Your task to perform on an android device: delete browsing data in the chrome app Image 0: 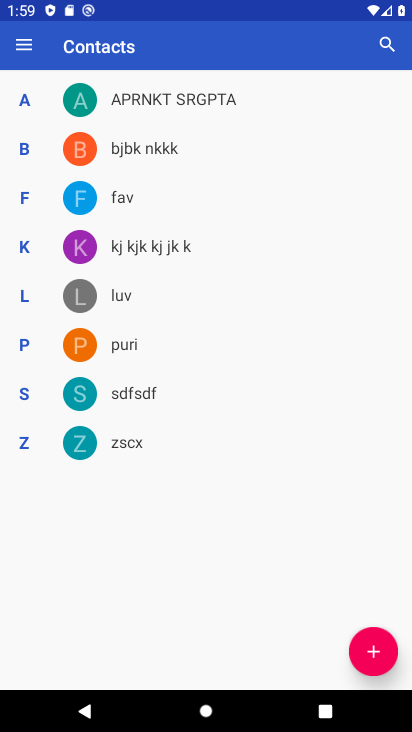
Step 0: press home button
Your task to perform on an android device: delete browsing data in the chrome app Image 1: 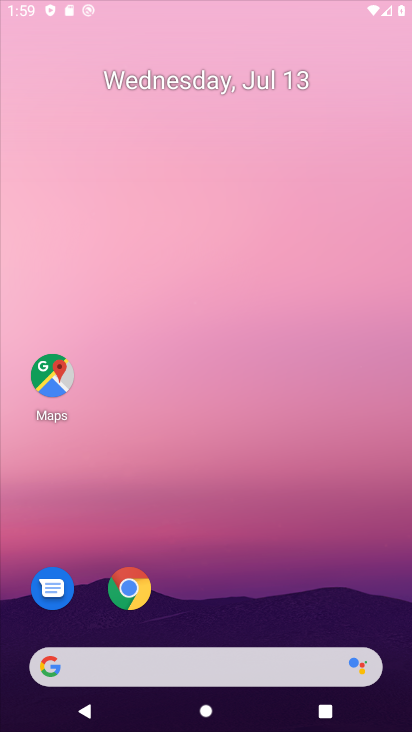
Step 1: drag from (180, 581) to (203, 34)
Your task to perform on an android device: delete browsing data in the chrome app Image 2: 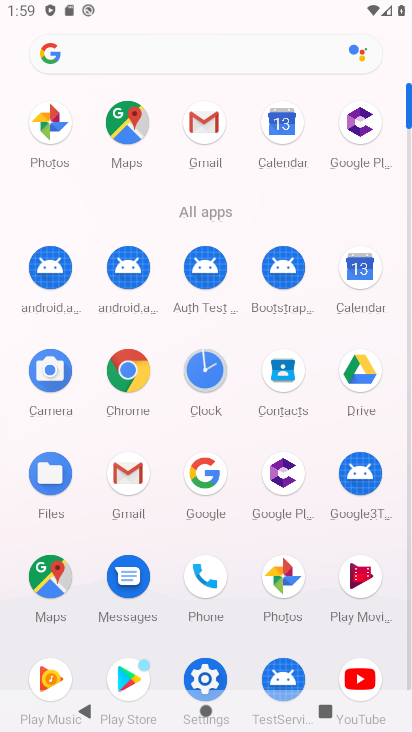
Step 2: click (120, 369)
Your task to perform on an android device: delete browsing data in the chrome app Image 3: 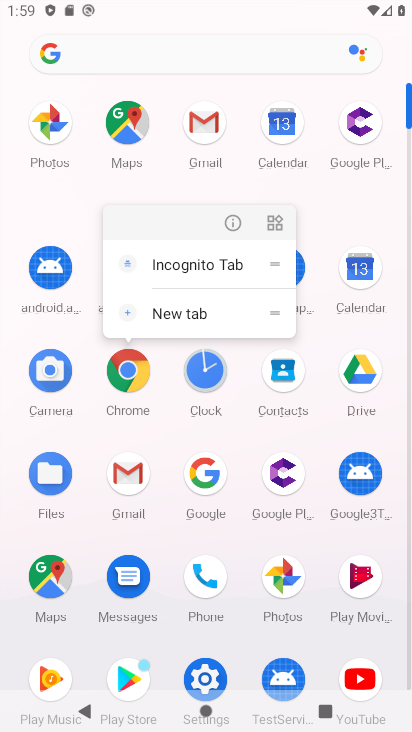
Step 3: click (222, 215)
Your task to perform on an android device: delete browsing data in the chrome app Image 4: 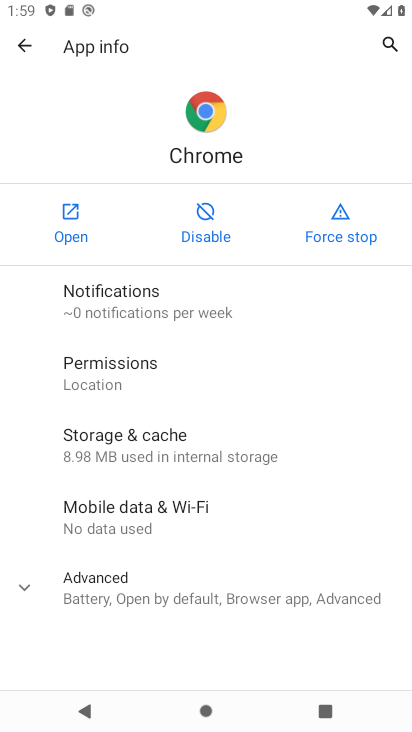
Step 4: click (69, 213)
Your task to perform on an android device: delete browsing data in the chrome app Image 5: 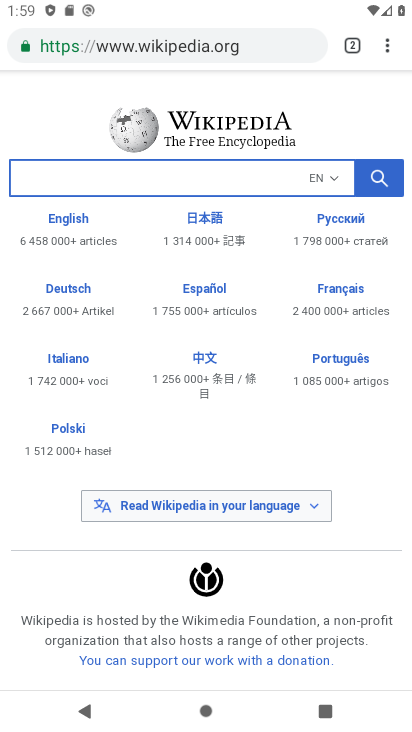
Step 5: click (384, 47)
Your task to perform on an android device: delete browsing data in the chrome app Image 6: 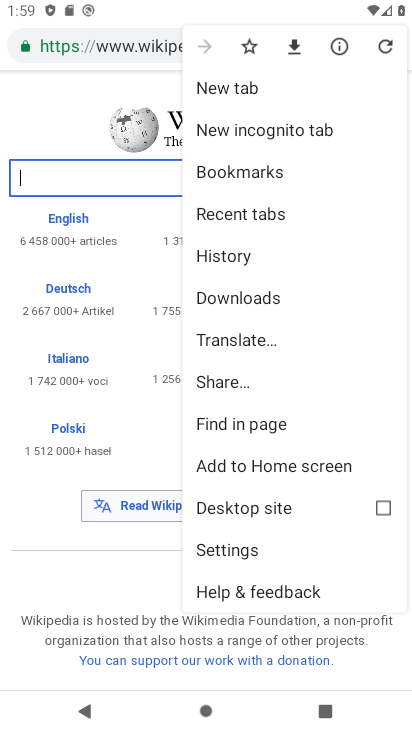
Step 6: drag from (219, 534) to (383, 151)
Your task to perform on an android device: delete browsing data in the chrome app Image 7: 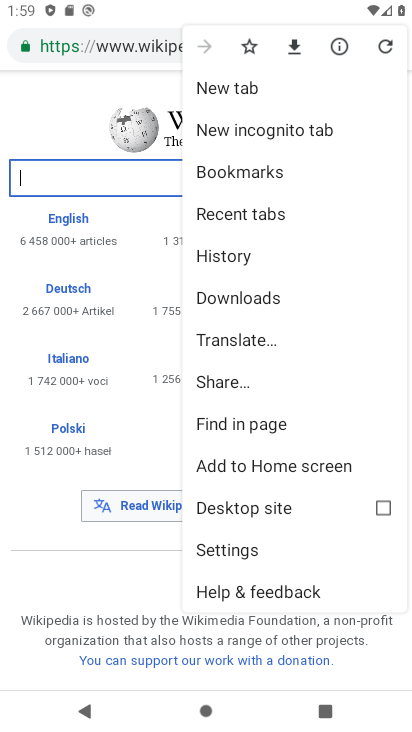
Step 7: click (250, 253)
Your task to perform on an android device: delete browsing data in the chrome app Image 8: 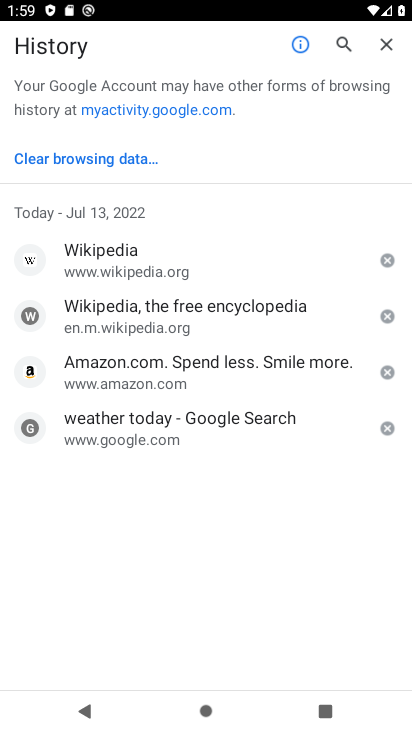
Step 8: click (49, 168)
Your task to perform on an android device: delete browsing data in the chrome app Image 9: 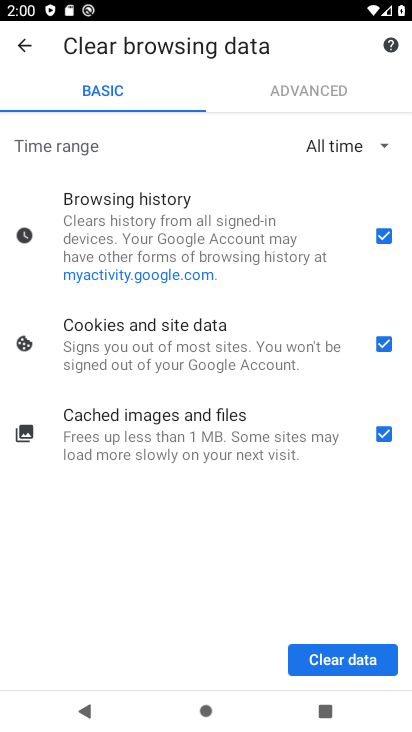
Step 9: drag from (290, 500) to (300, 31)
Your task to perform on an android device: delete browsing data in the chrome app Image 10: 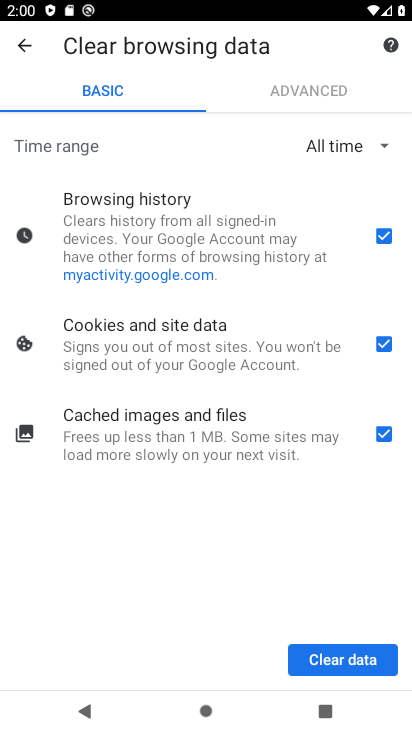
Step 10: drag from (157, 538) to (227, 333)
Your task to perform on an android device: delete browsing data in the chrome app Image 11: 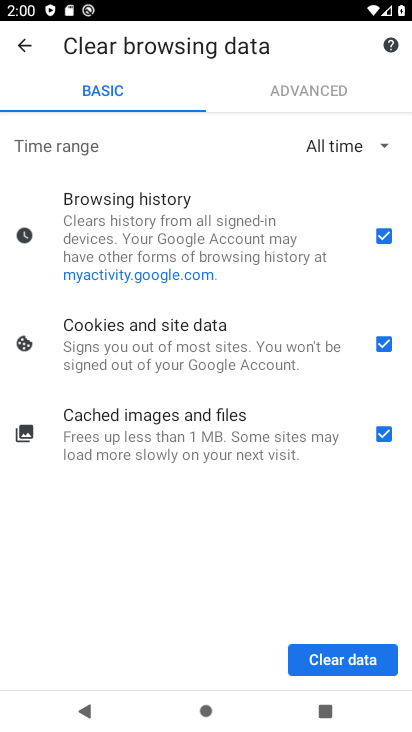
Step 11: click (331, 645)
Your task to perform on an android device: delete browsing data in the chrome app Image 12: 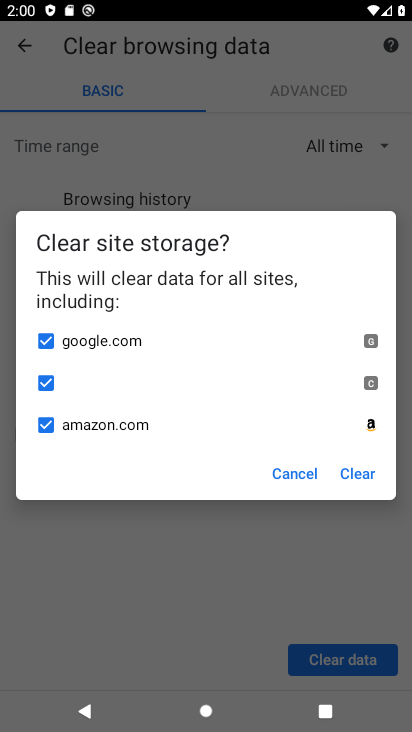
Step 12: click (350, 474)
Your task to perform on an android device: delete browsing data in the chrome app Image 13: 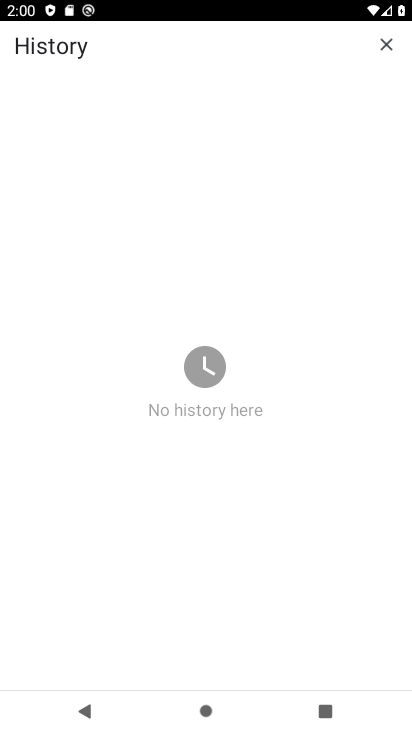
Step 13: task complete